Your task to perform on an android device: Open calendar and show me the second week of next month Image 0: 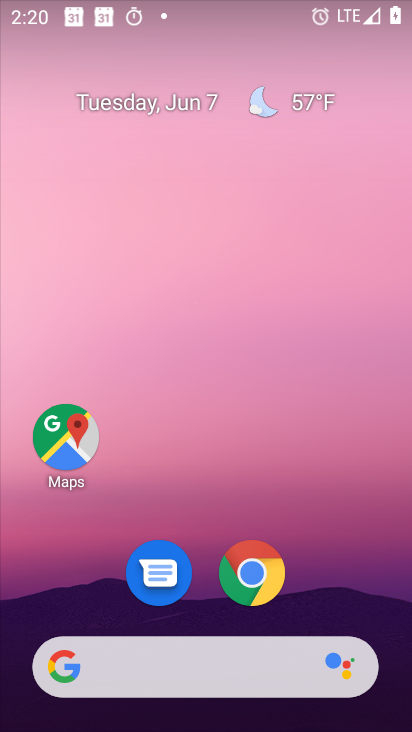
Step 0: press home button
Your task to perform on an android device: Open calendar and show me the second week of next month Image 1: 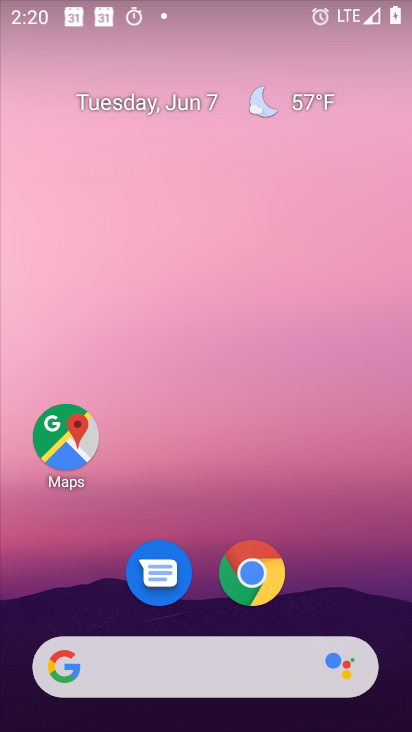
Step 1: drag from (358, 633) to (268, 115)
Your task to perform on an android device: Open calendar and show me the second week of next month Image 2: 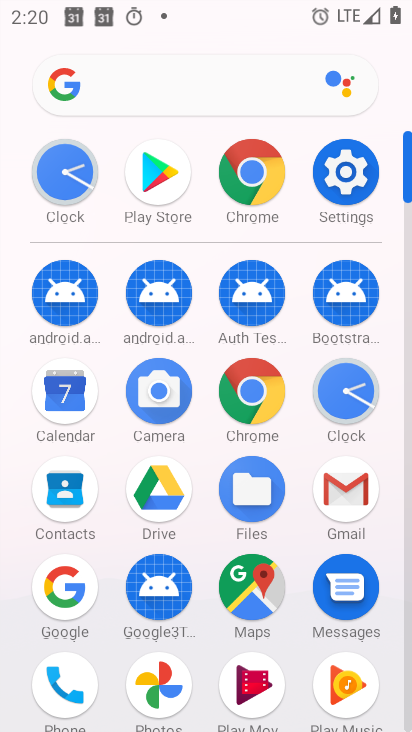
Step 2: click (59, 394)
Your task to perform on an android device: Open calendar and show me the second week of next month Image 3: 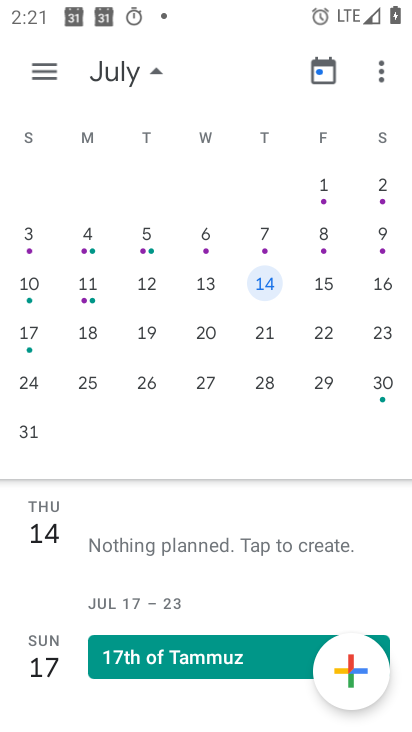
Step 3: click (328, 238)
Your task to perform on an android device: Open calendar and show me the second week of next month Image 4: 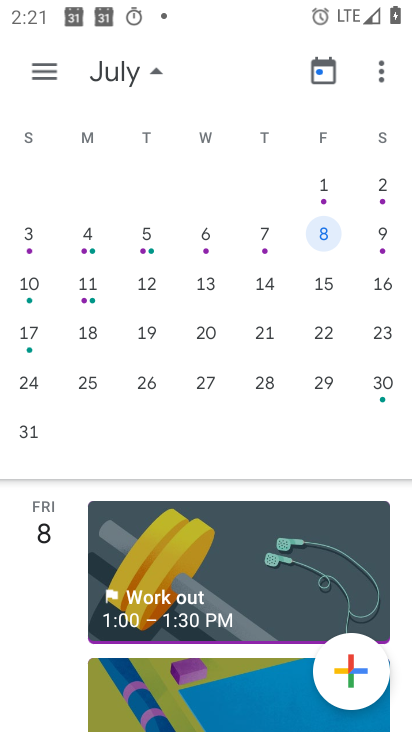
Step 4: task complete